Your task to perform on an android device: Check the weather Image 0: 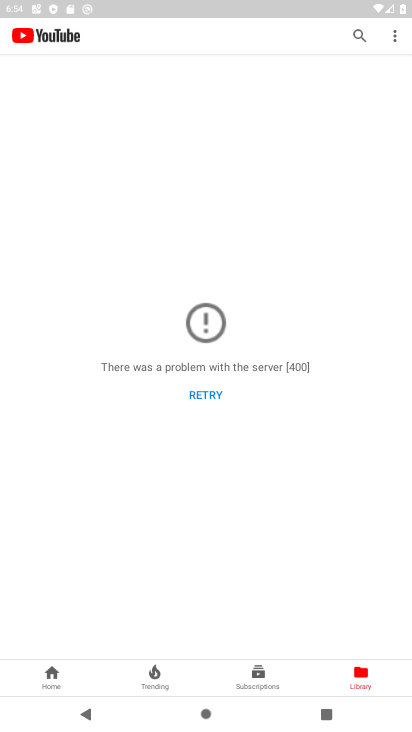
Step 0: click (124, 601)
Your task to perform on an android device: Check the weather Image 1: 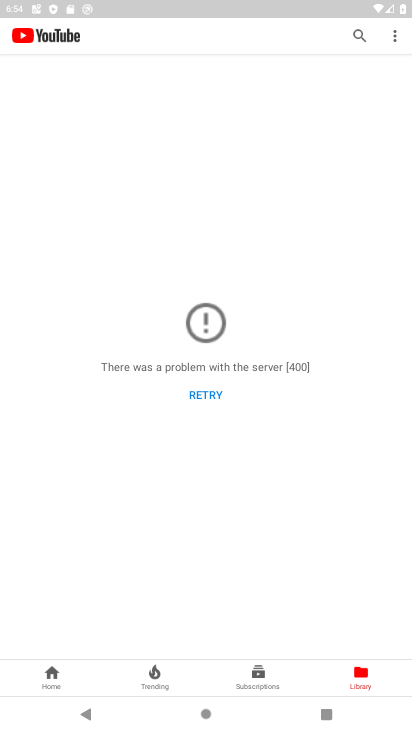
Step 1: press home button
Your task to perform on an android device: Check the weather Image 2: 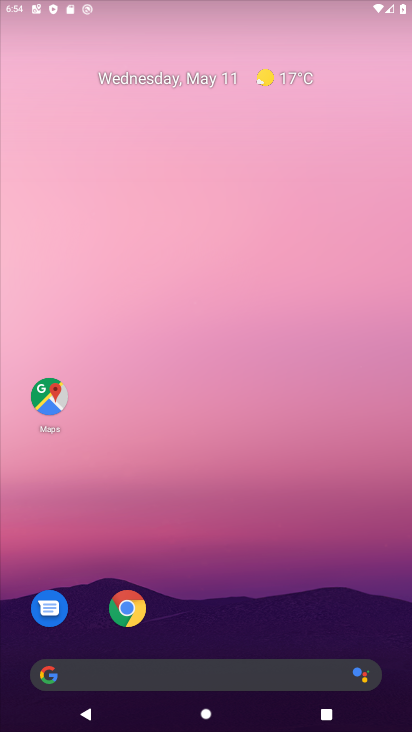
Step 2: drag from (253, 610) to (250, 192)
Your task to perform on an android device: Check the weather Image 3: 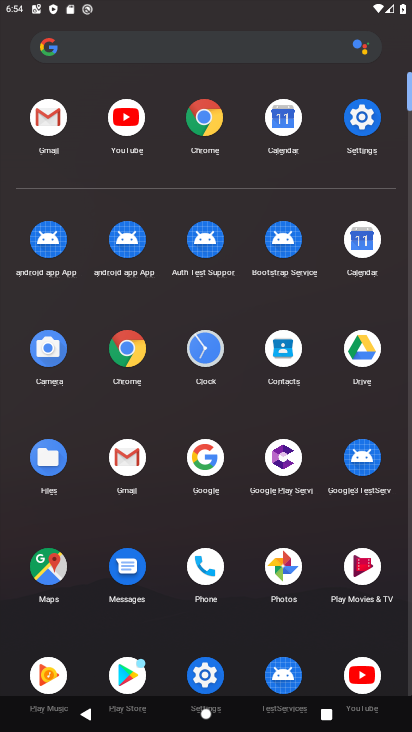
Step 3: click (195, 39)
Your task to perform on an android device: Check the weather Image 4: 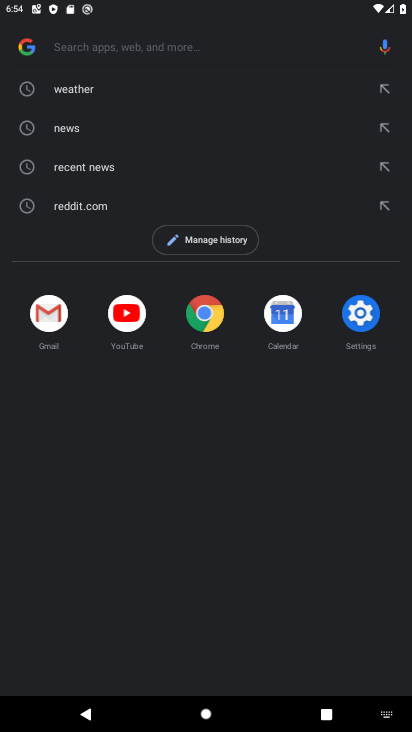
Step 4: click (168, 82)
Your task to perform on an android device: Check the weather Image 5: 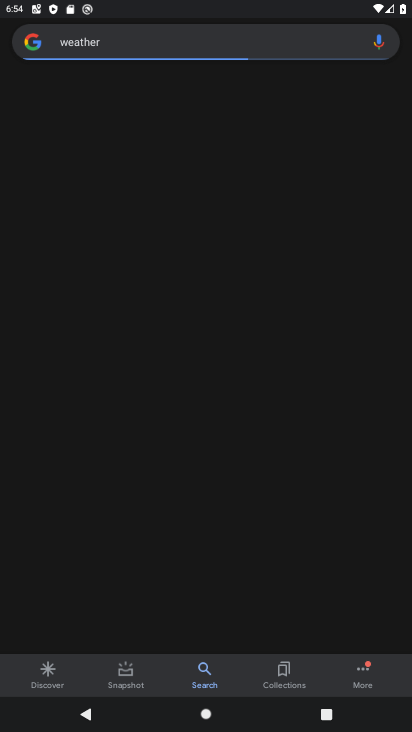
Step 5: task complete